Your task to perform on an android device: open a new tab in the chrome app Image 0: 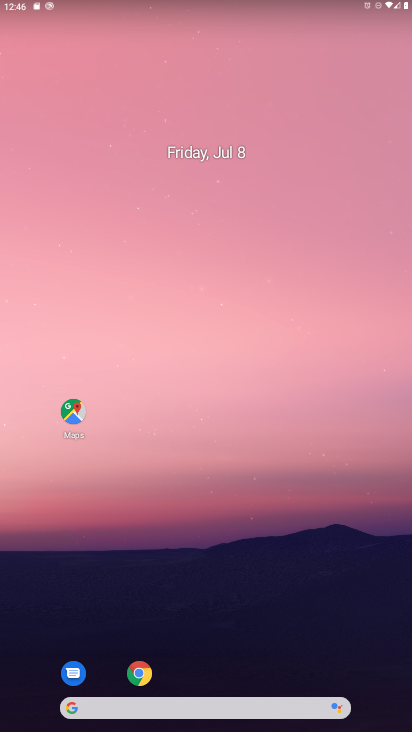
Step 0: click (142, 668)
Your task to perform on an android device: open a new tab in the chrome app Image 1: 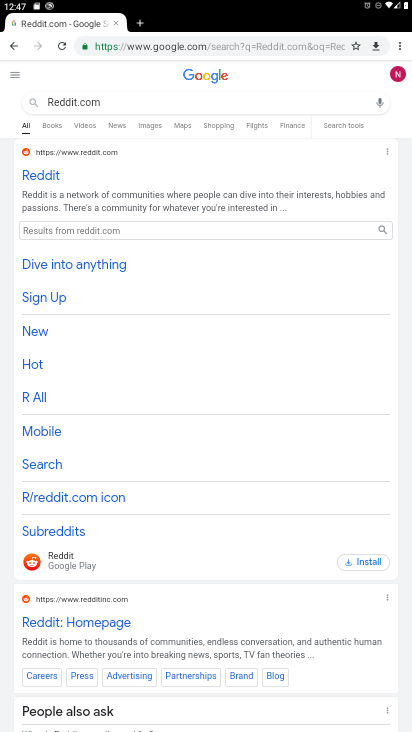
Step 1: click (403, 45)
Your task to perform on an android device: open a new tab in the chrome app Image 2: 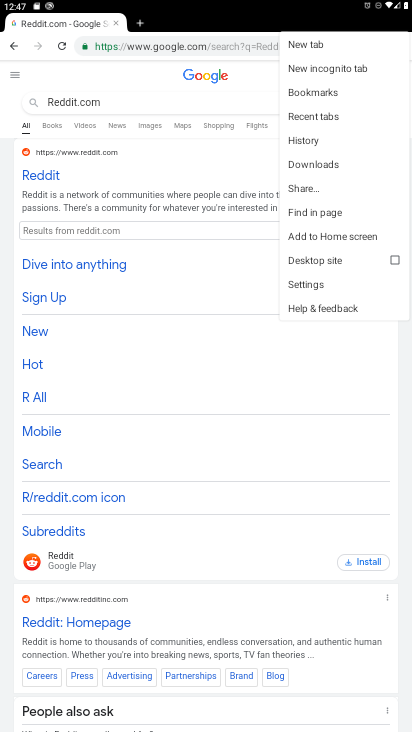
Step 2: click (304, 43)
Your task to perform on an android device: open a new tab in the chrome app Image 3: 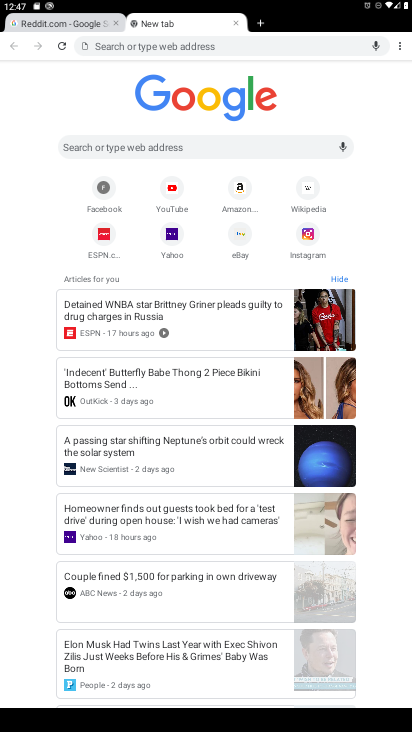
Step 3: task complete